Your task to perform on an android device: turn smart compose on in the gmail app Image 0: 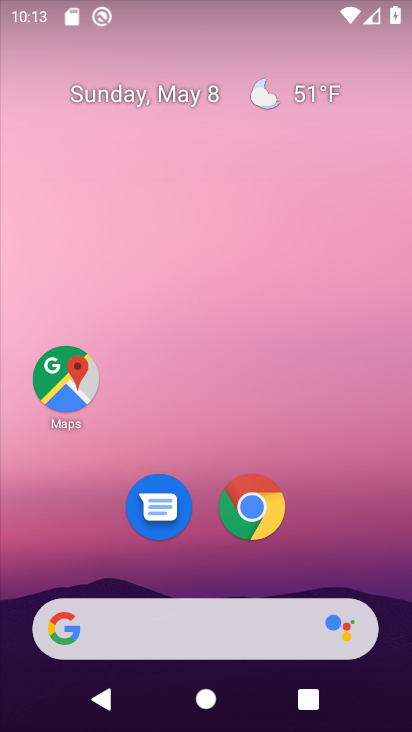
Step 0: press home button
Your task to perform on an android device: turn smart compose on in the gmail app Image 1: 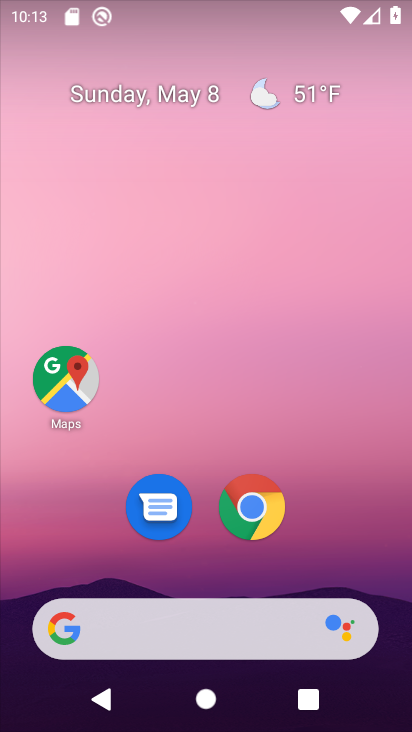
Step 1: drag from (209, 572) to (204, 104)
Your task to perform on an android device: turn smart compose on in the gmail app Image 2: 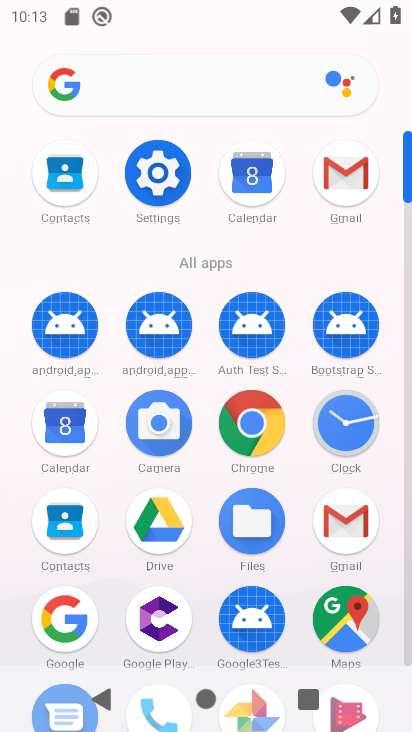
Step 2: click (343, 165)
Your task to perform on an android device: turn smart compose on in the gmail app Image 3: 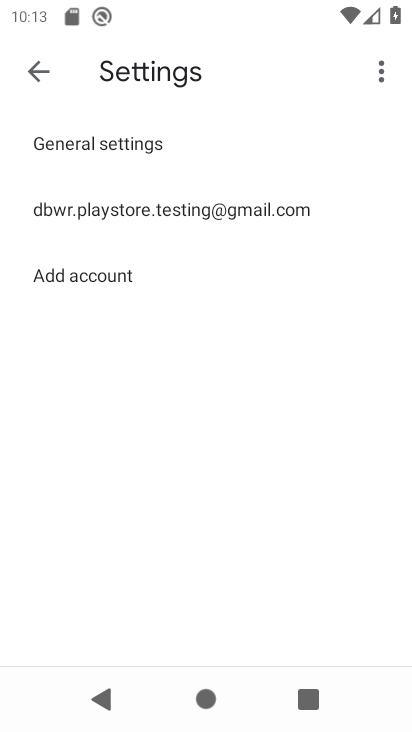
Step 3: click (323, 207)
Your task to perform on an android device: turn smart compose on in the gmail app Image 4: 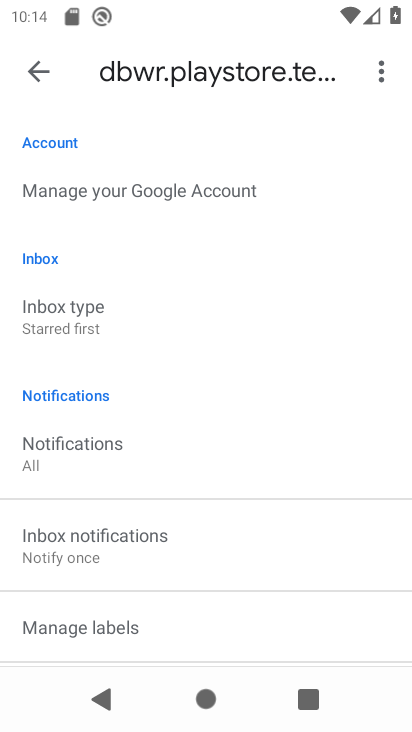
Step 4: task complete